Your task to perform on an android device: see tabs open on other devices in the chrome app Image 0: 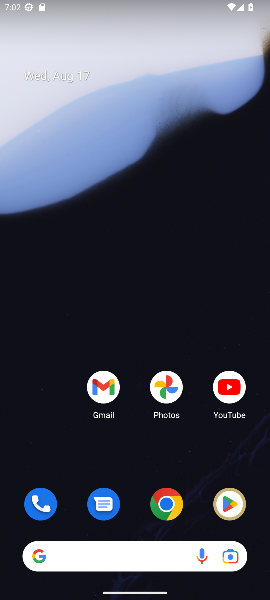
Step 0: drag from (196, 151) to (226, 6)
Your task to perform on an android device: see tabs open on other devices in the chrome app Image 1: 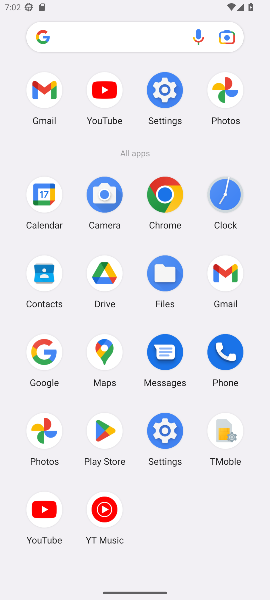
Step 1: click (180, 199)
Your task to perform on an android device: see tabs open on other devices in the chrome app Image 2: 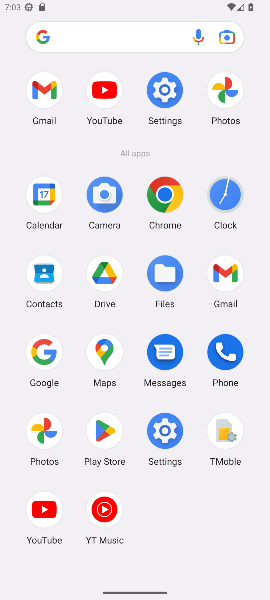
Step 2: click (177, 207)
Your task to perform on an android device: see tabs open on other devices in the chrome app Image 3: 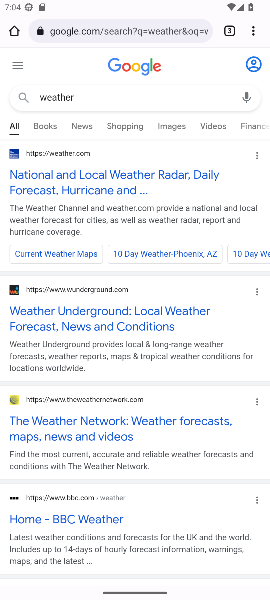
Step 3: click (251, 36)
Your task to perform on an android device: see tabs open on other devices in the chrome app Image 4: 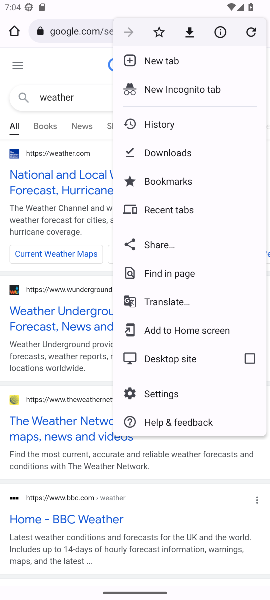
Step 4: click (187, 213)
Your task to perform on an android device: see tabs open on other devices in the chrome app Image 5: 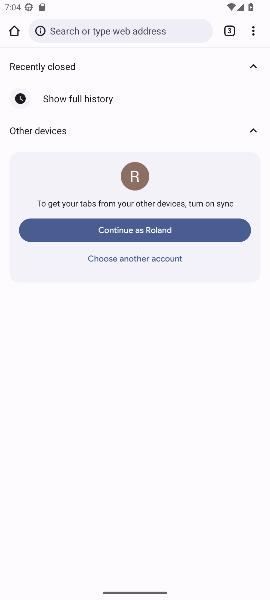
Step 5: click (183, 233)
Your task to perform on an android device: see tabs open on other devices in the chrome app Image 6: 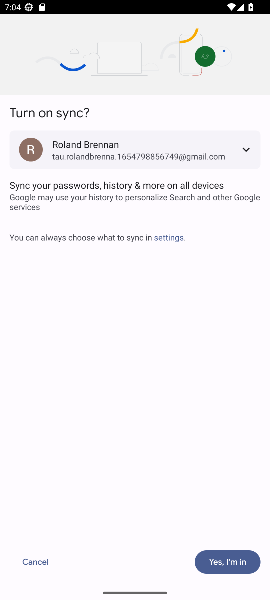
Step 6: click (224, 566)
Your task to perform on an android device: see tabs open on other devices in the chrome app Image 7: 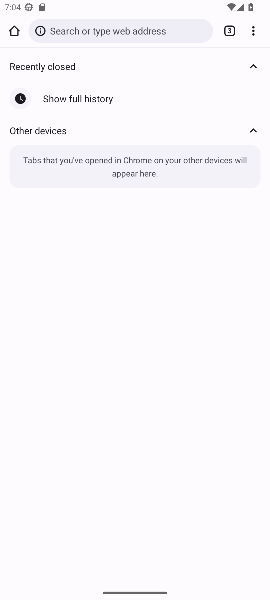
Step 7: task complete